Your task to perform on an android device: set the stopwatch Image 0: 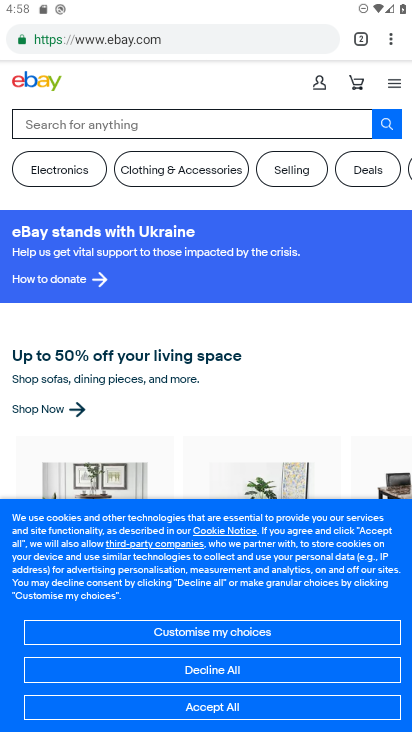
Step 0: press home button
Your task to perform on an android device: set the stopwatch Image 1: 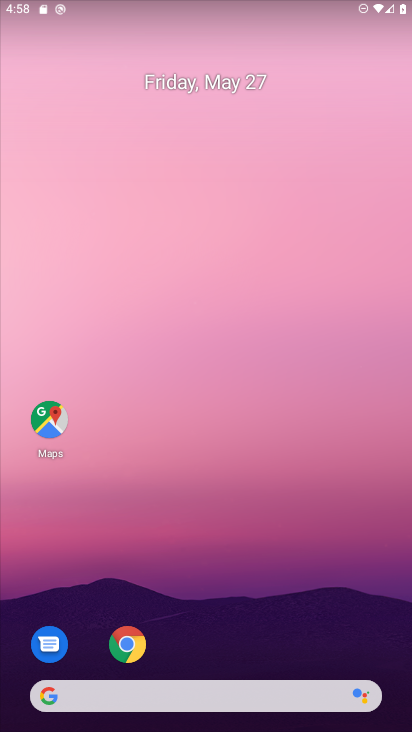
Step 1: drag from (190, 686) to (257, 54)
Your task to perform on an android device: set the stopwatch Image 2: 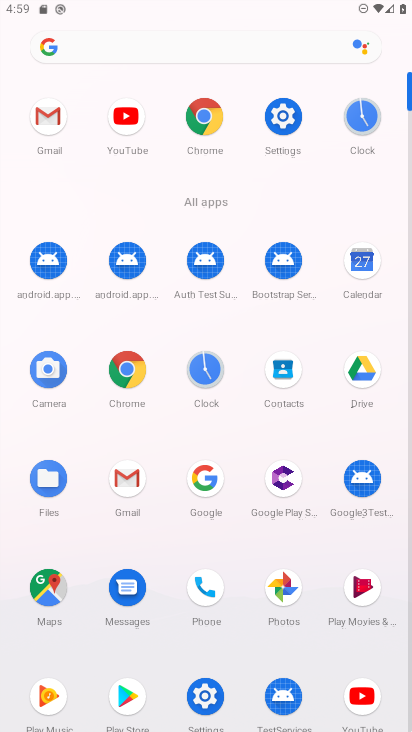
Step 2: click (372, 118)
Your task to perform on an android device: set the stopwatch Image 3: 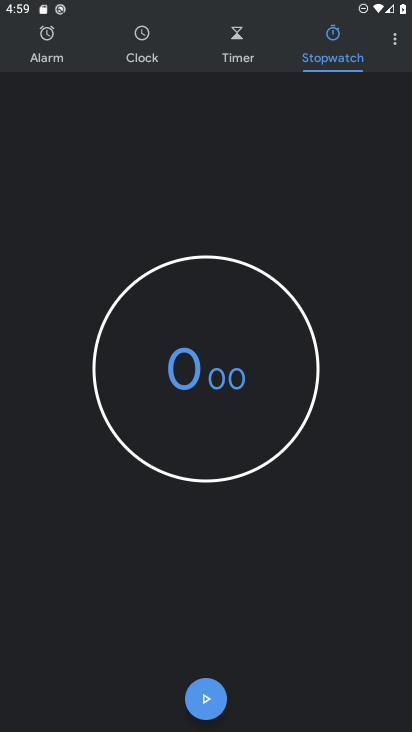
Step 3: click (215, 710)
Your task to perform on an android device: set the stopwatch Image 4: 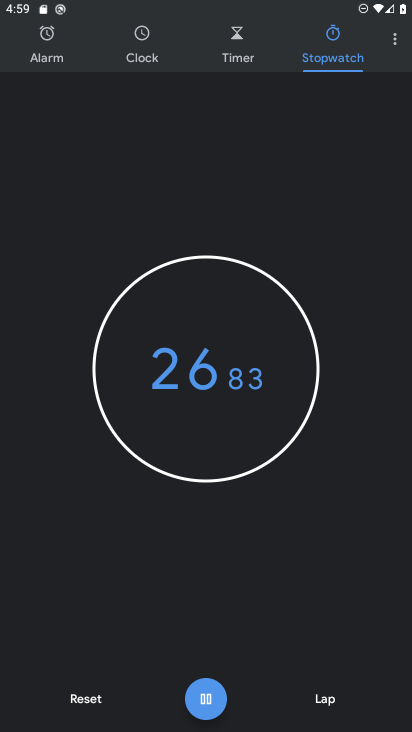
Step 4: task complete